Your task to perform on an android device: Open settings Image 0: 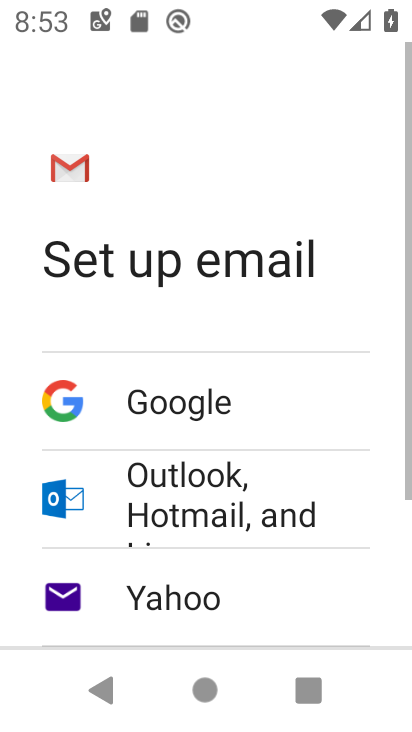
Step 0: press home button
Your task to perform on an android device: Open settings Image 1: 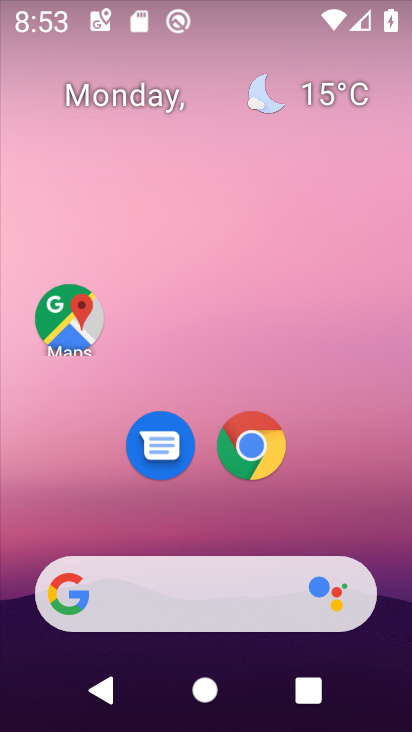
Step 1: drag from (200, 511) to (203, 23)
Your task to perform on an android device: Open settings Image 2: 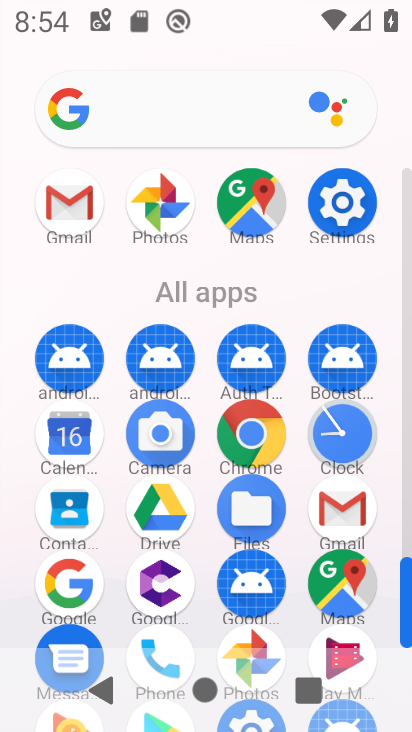
Step 2: click (335, 191)
Your task to perform on an android device: Open settings Image 3: 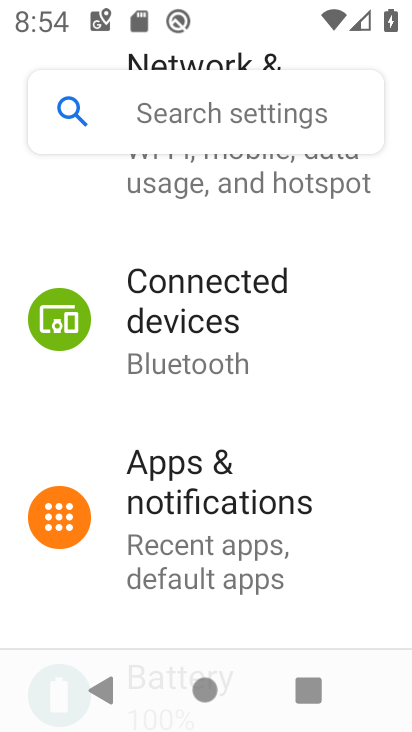
Step 3: task complete